Your task to perform on an android device: Open Yahoo.com Image 0: 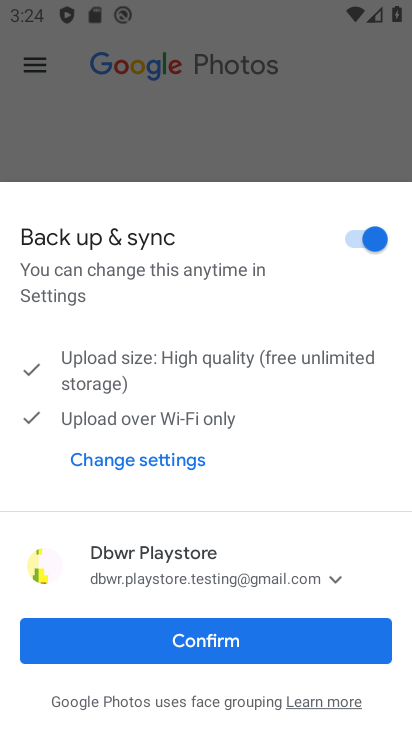
Step 0: press home button
Your task to perform on an android device: Open Yahoo.com Image 1: 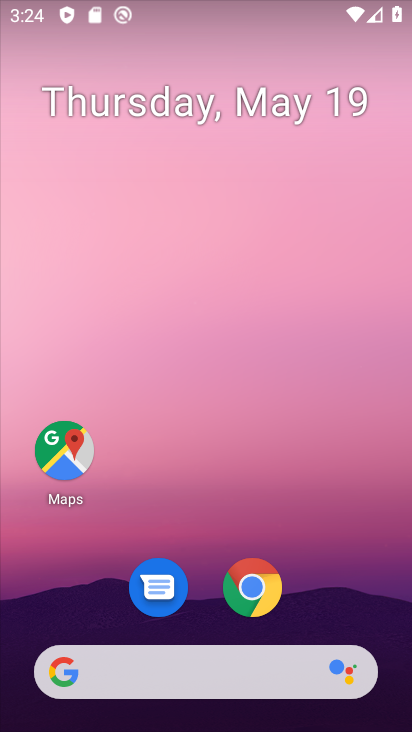
Step 1: drag from (341, 615) to (343, 290)
Your task to perform on an android device: Open Yahoo.com Image 2: 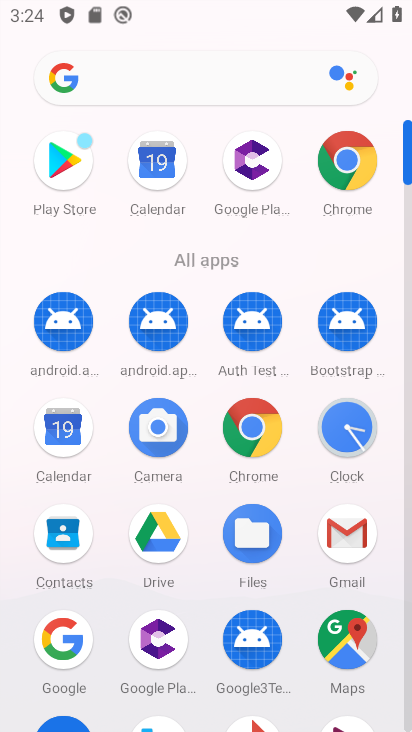
Step 2: click (275, 457)
Your task to perform on an android device: Open Yahoo.com Image 3: 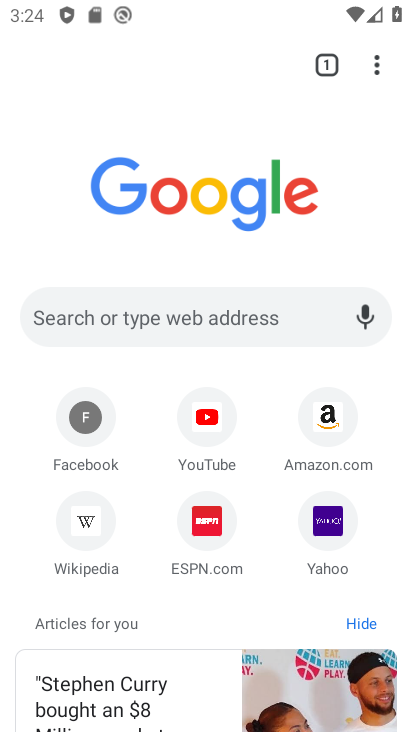
Step 3: click (338, 542)
Your task to perform on an android device: Open Yahoo.com Image 4: 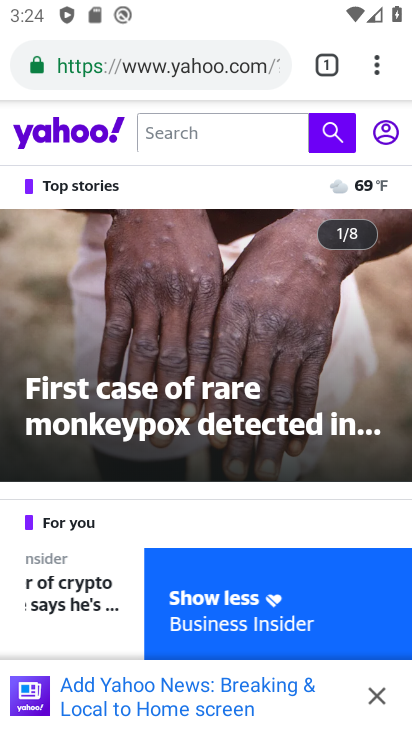
Step 4: task complete